Your task to perform on an android device: turn off notifications in google photos Image 0: 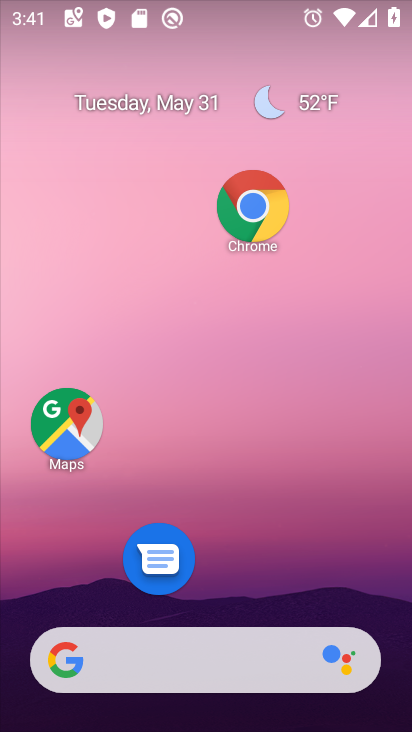
Step 0: drag from (229, 596) to (205, 163)
Your task to perform on an android device: turn off notifications in google photos Image 1: 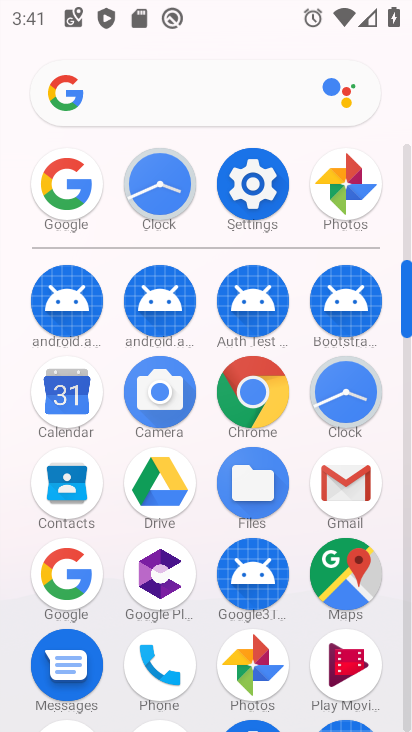
Step 1: click (336, 213)
Your task to perform on an android device: turn off notifications in google photos Image 2: 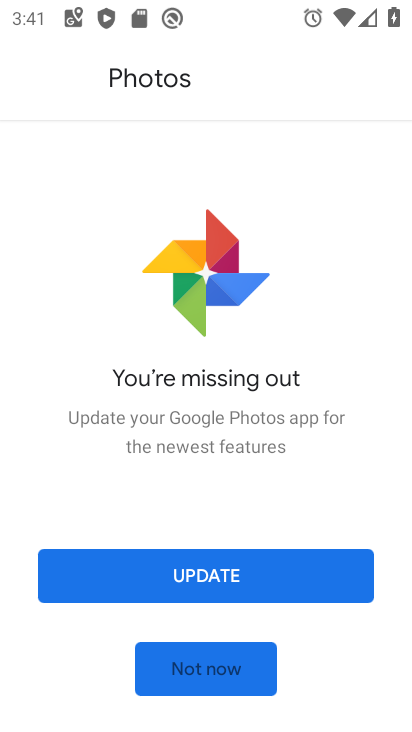
Step 2: click (189, 658)
Your task to perform on an android device: turn off notifications in google photos Image 3: 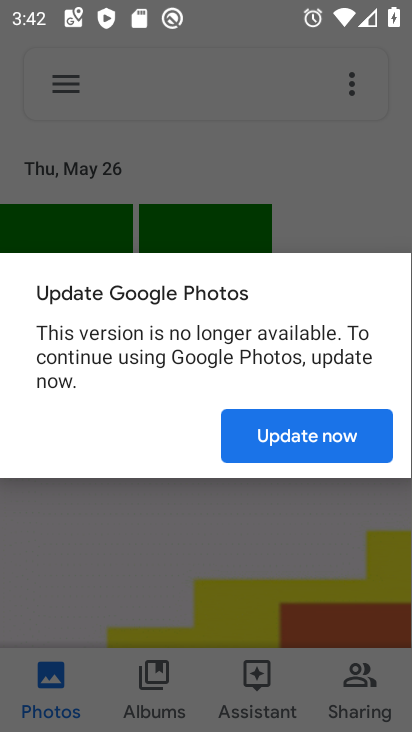
Step 3: click (268, 448)
Your task to perform on an android device: turn off notifications in google photos Image 4: 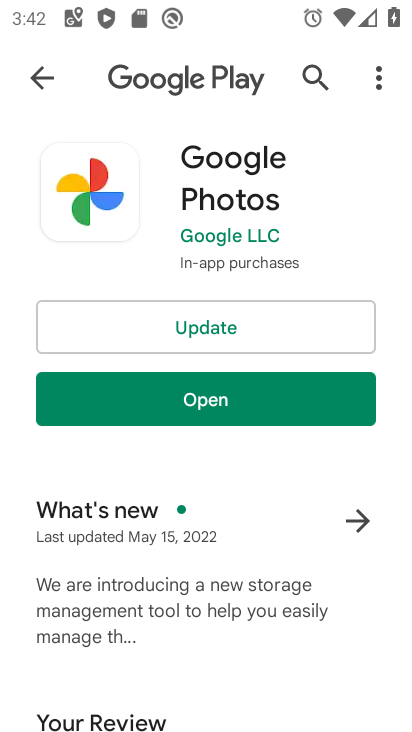
Step 4: click (181, 386)
Your task to perform on an android device: turn off notifications in google photos Image 5: 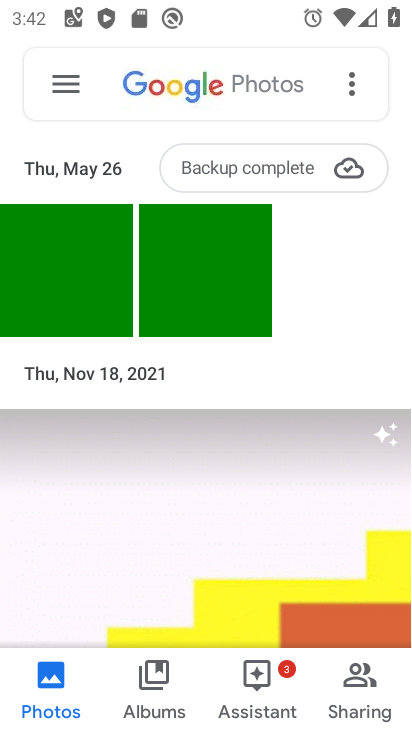
Step 5: click (50, 70)
Your task to perform on an android device: turn off notifications in google photos Image 6: 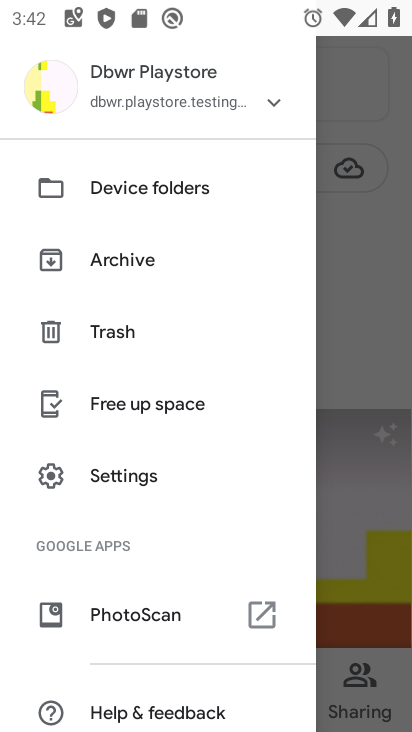
Step 6: click (139, 482)
Your task to perform on an android device: turn off notifications in google photos Image 7: 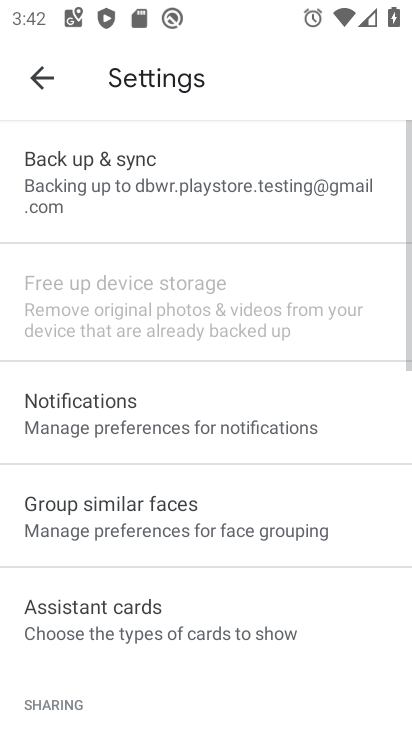
Step 7: drag from (150, 558) to (156, 376)
Your task to perform on an android device: turn off notifications in google photos Image 8: 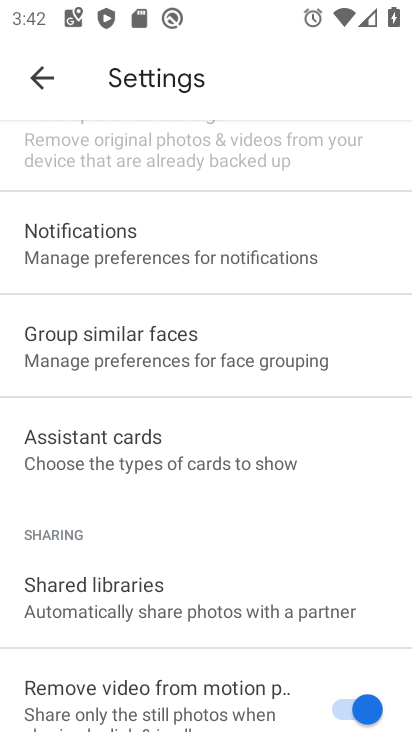
Step 8: click (117, 263)
Your task to perform on an android device: turn off notifications in google photos Image 9: 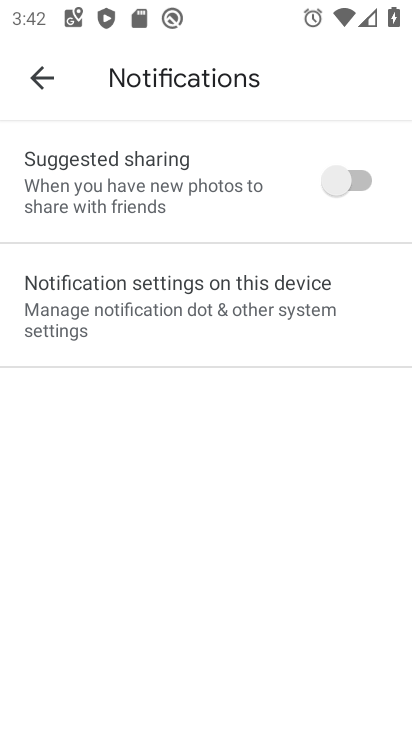
Step 9: click (142, 329)
Your task to perform on an android device: turn off notifications in google photos Image 10: 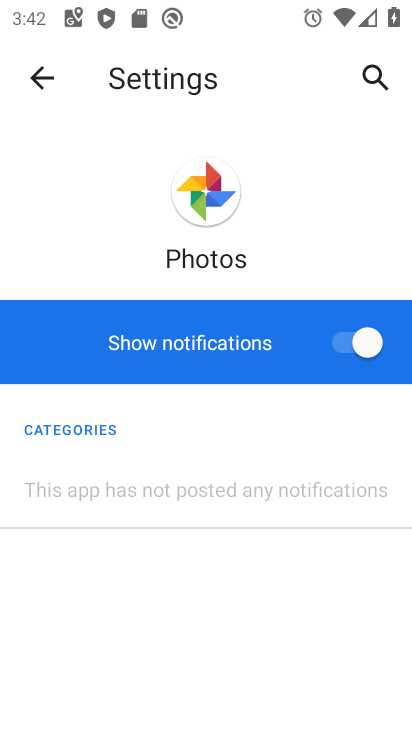
Step 10: click (351, 344)
Your task to perform on an android device: turn off notifications in google photos Image 11: 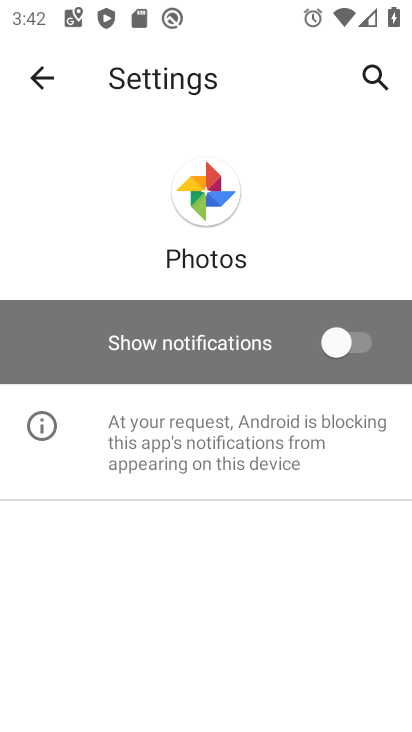
Step 11: task complete